Your task to perform on an android device: What's on my calendar tomorrow? Image 0: 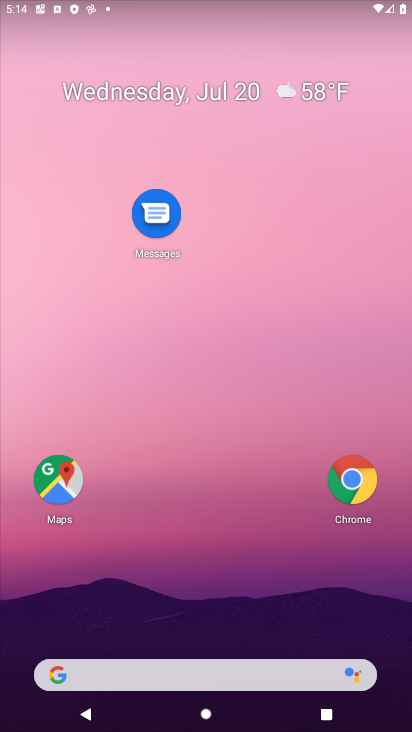
Step 0: drag from (145, 609) to (228, 159)
Your task to perform on an android device: What's on my calendar tomorrow? Image 1: 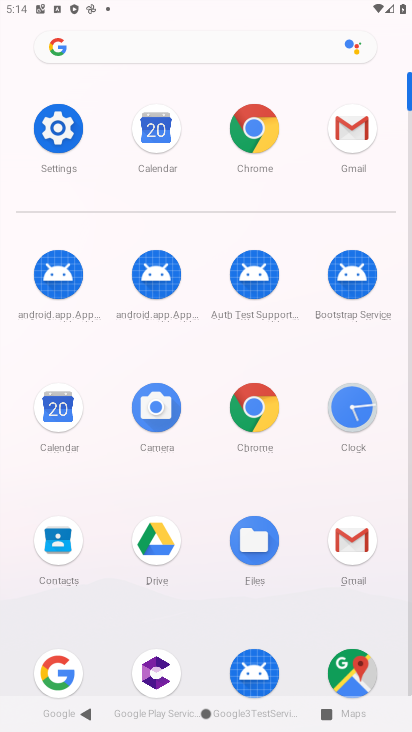
Step 1: click (149, 125)
Your task to perform on an android device: What's on my calendar tomorrow? Image 2: 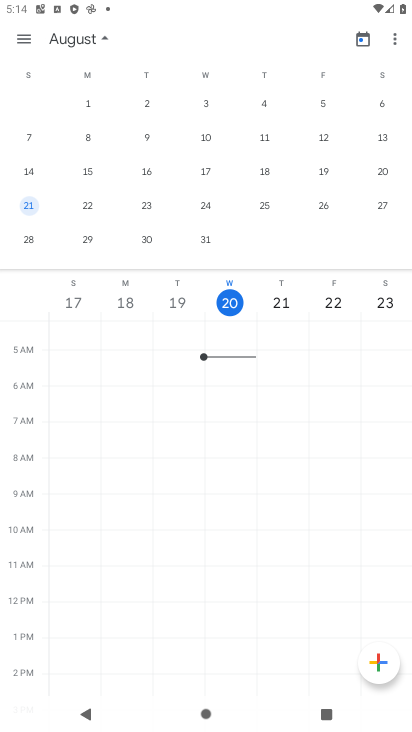
Step 2: click (94, 32)
Your task to perform on an android device: What's on my calendar tomorrow? Image 3: 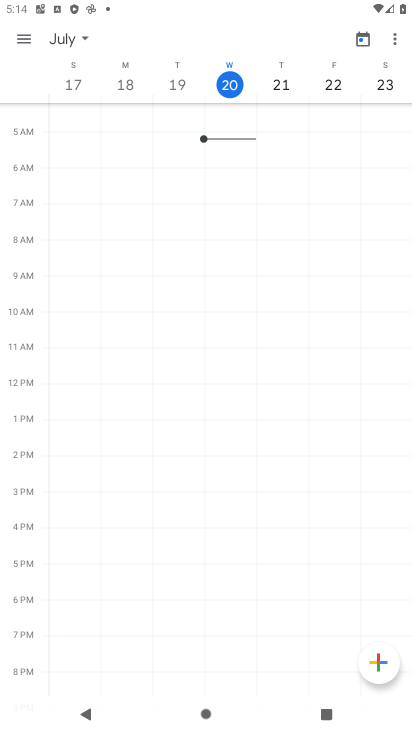
Step 3: click (280, 87)
Your task to perform on an android device: What's on my calendar tomorrow? Image 4: 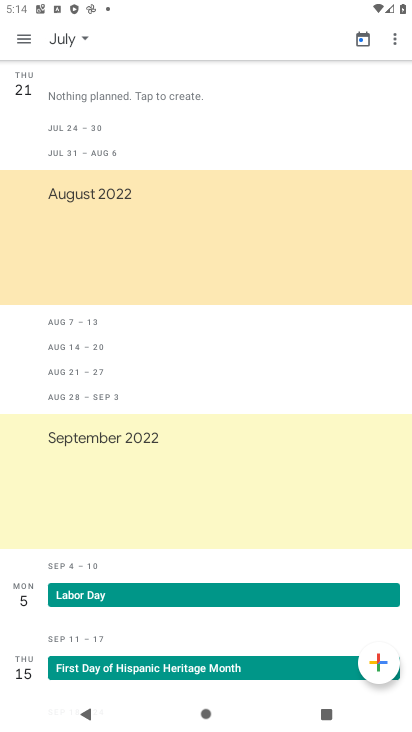
Step 4: task complete